Your task to perform on an android device: check google app version Image 0: 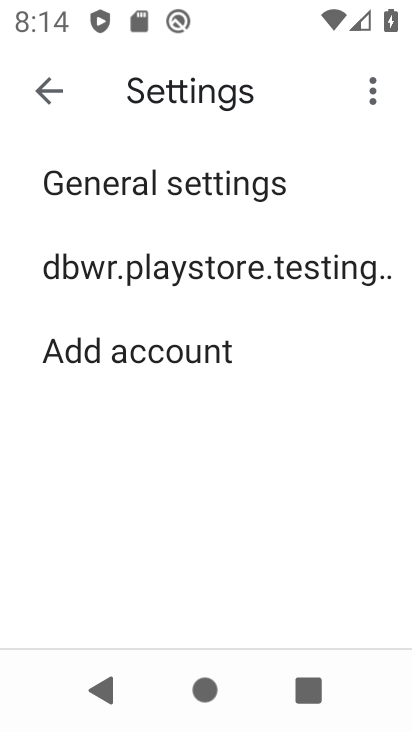
Step 0: press home button
Your task to perform on an android device: check google app version Image 1: 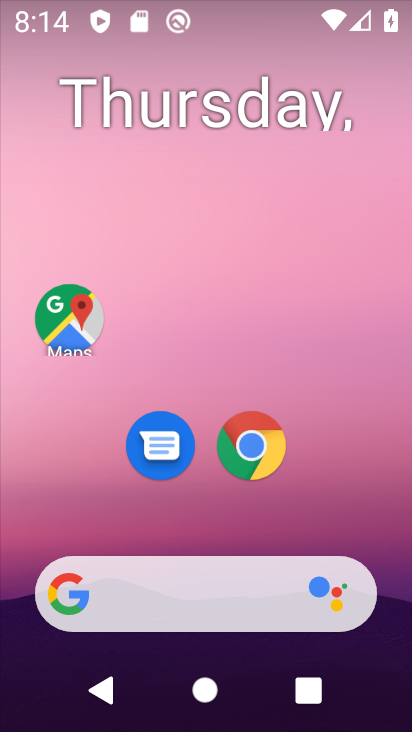
Step 1: drag from (225, 522) to (315, 32)
Your task to perform on an android device: check google app version Image 2: 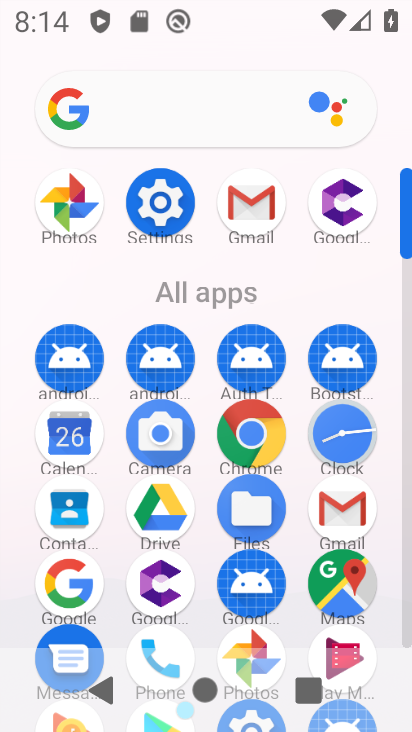
Step 2: drag from (201, 550) to (151, 133)
Your task to perform on an android device: check google app version Image 3: 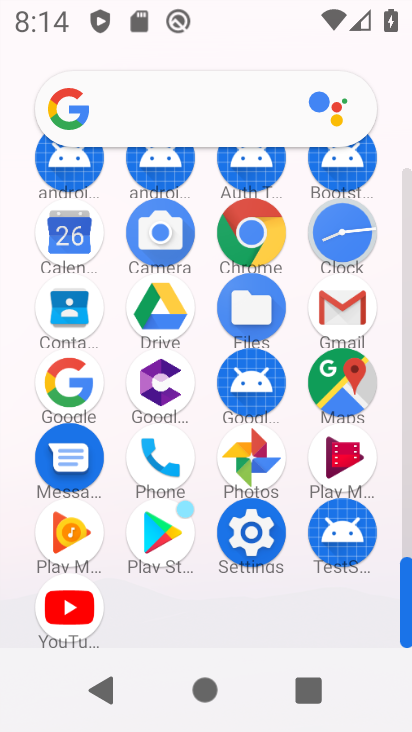
Step 3: click (68, 379)
Your task to perform on an android device: check google app version Image 4: 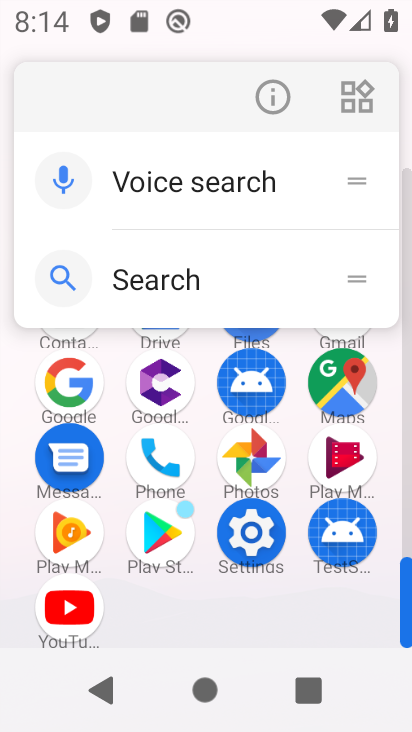
Step 4: click (276, 103)
Your task to perform on an android device: check google app version Image 5: 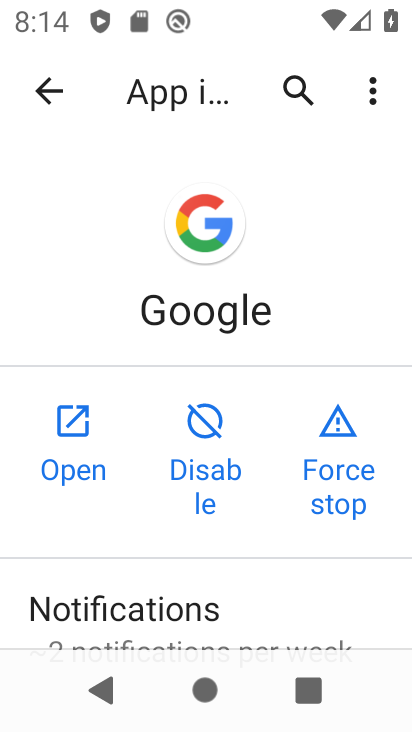
Step 5: drag from (237, 539) to (176, 1)
Your task to perform on an android device: check google app version Image 6: 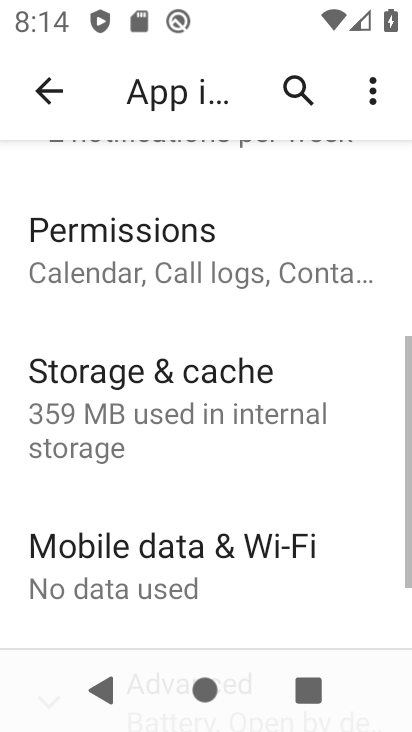
Step 6: drag from (241, 515) to (191, 103)
Your task to perform on an android device: check google app version Image 7: 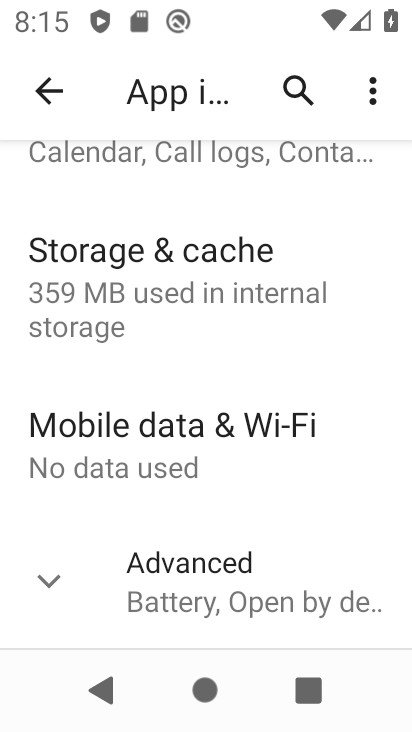
Step 7: click (221, 602)
Your task to perform on an android device: check google app version Image 8: 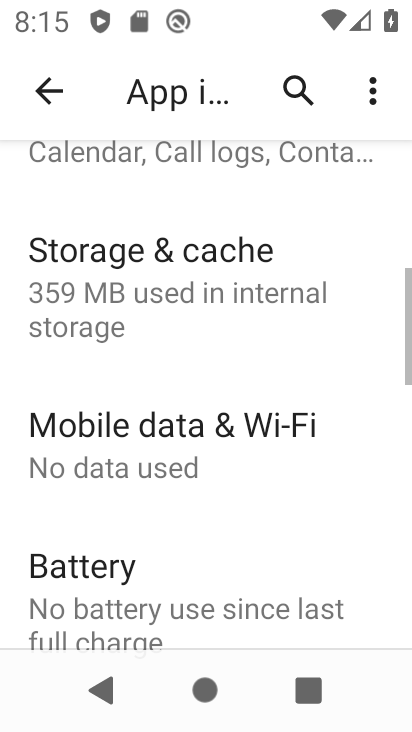
Step 8: task complete